Your task to perform on an android device: Open Chrome and go to settings Image 0: 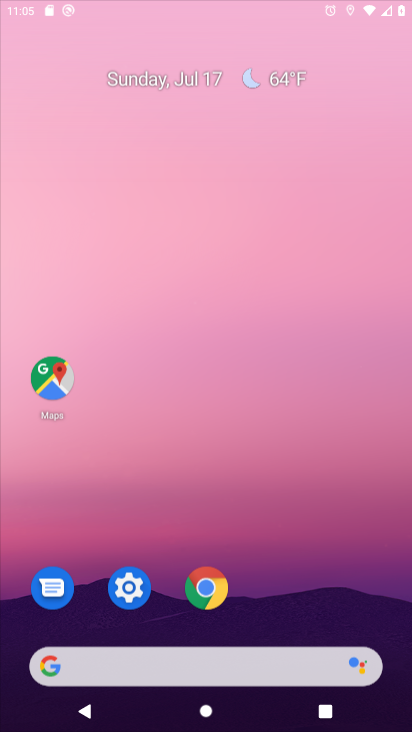
Step 0: drag from (245, 685) to (255, 236)
Your task to perform on an android device: Open Chrome and go to settings Image 1: 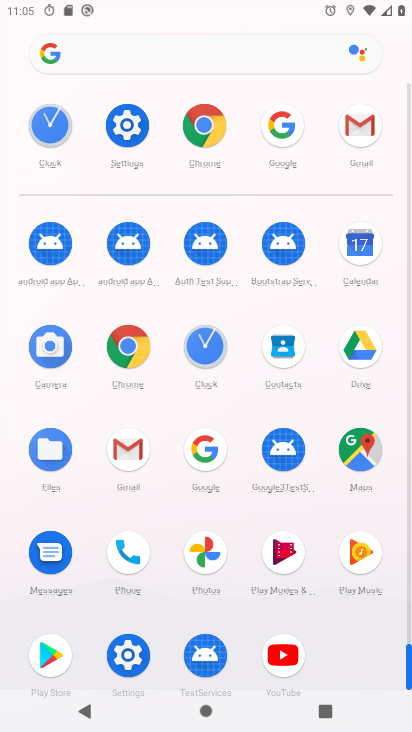
Step 1: click (199, 129)
Your task to perform on an android device: Open Chrome and go to settings Image 2: 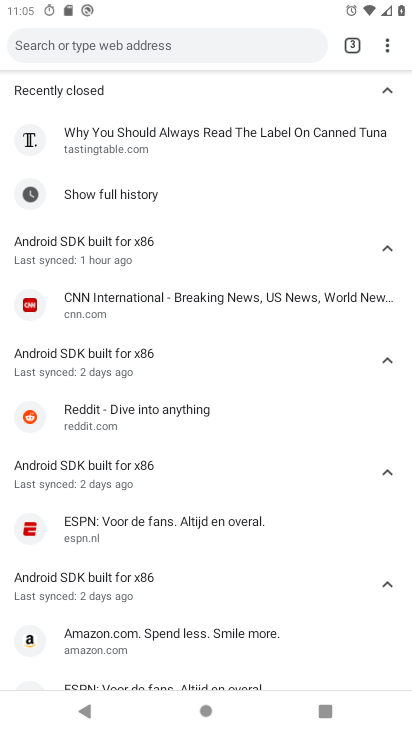
Step 2: drag from (382, 48) to (224, 391)
Your task to perform on an android device: Open Chrome and go to settings Image 3: 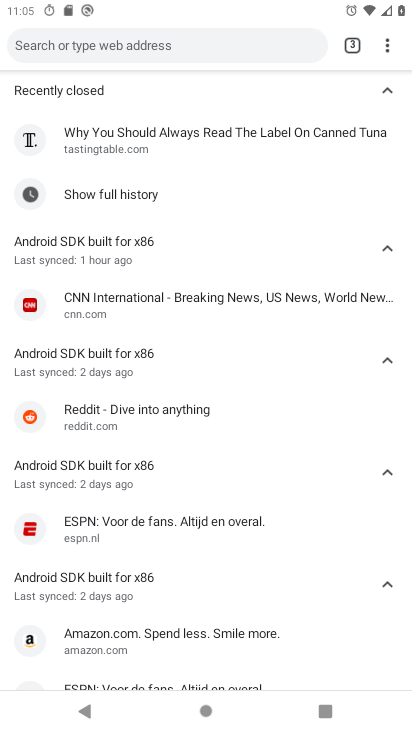
Step 3: click (225, 392)
Your task to perform on an android device: Open Chrome and go to settings Image 4: 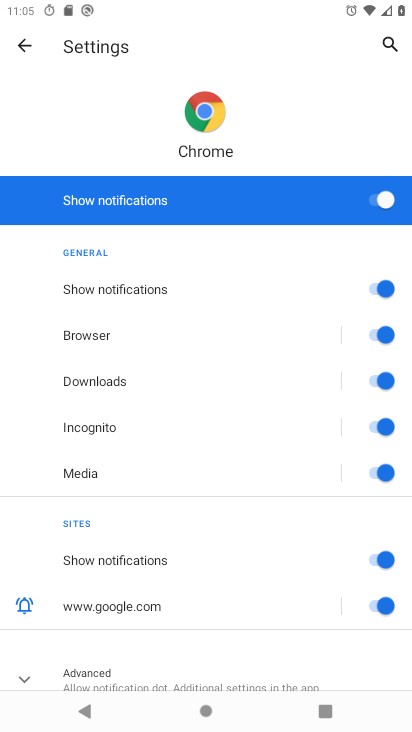
Step 4: task complete